Your task to perform on an android device: snooze an email in the gmail app Image 0: 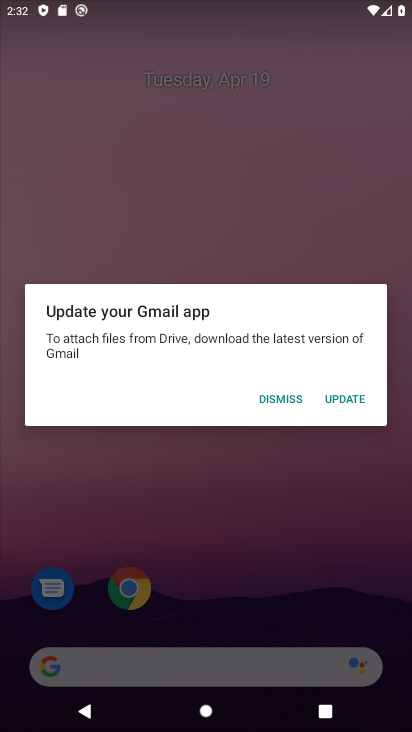
Step 0: click (280, 395)
Your task to perform on an android device: snooze an email in the gmail app Image 1: 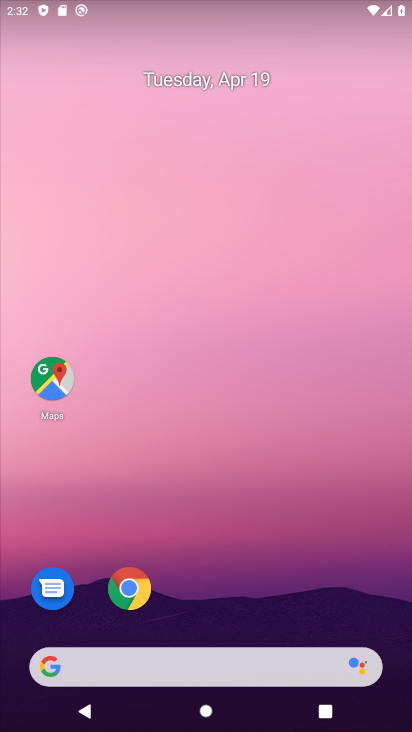
Step 1: drag from (170, 620) to (211, 68)
Your task to perform on an android device: snooze an email in the gmail app Image 2: 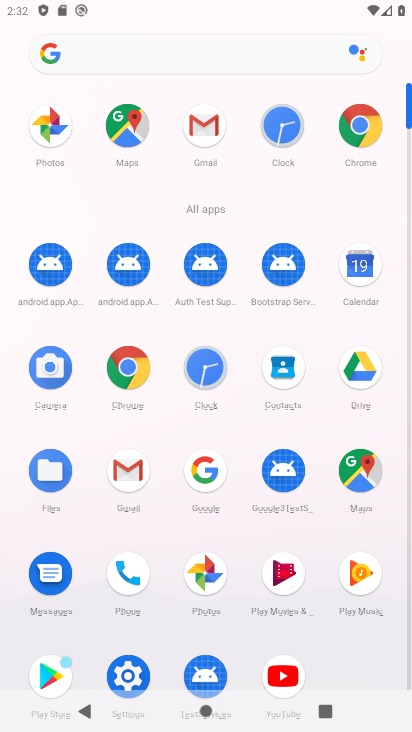
Step 2: click (125, 677)
Your task to perform on an android device: snooze an email in the gmail app Image 3: 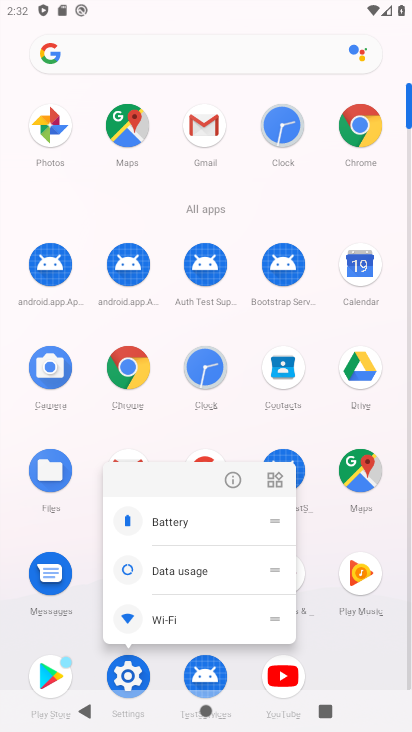
Step 3: click (240, 471)
Your task to perform on an android device: snooze an email in the gmail app Image 4: 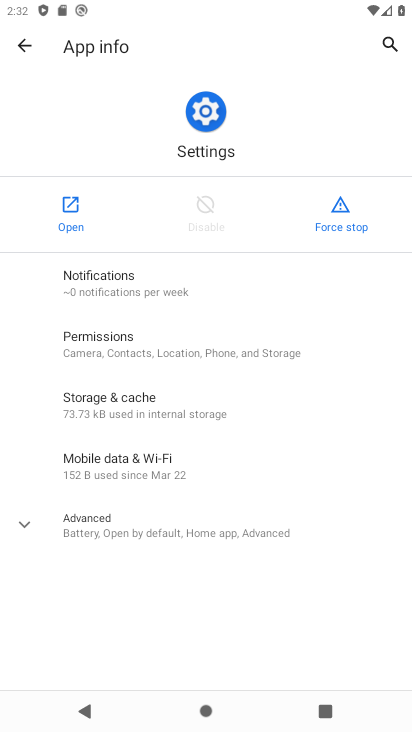
Step 4: click (71, 203)
Your task to perform on an android device: snooze an email in the gmail app Image 5: 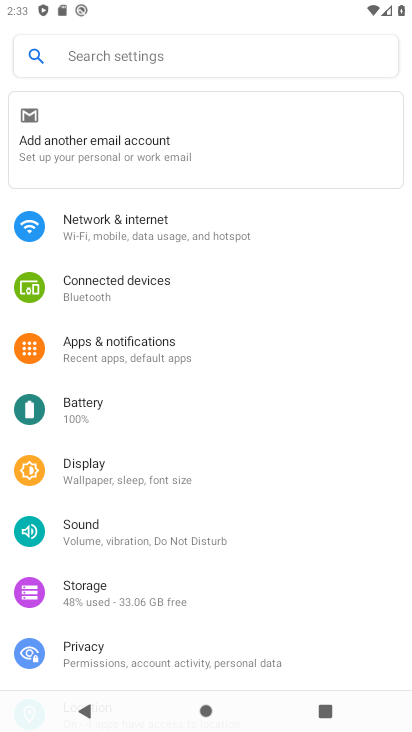
Step 5: drag from (190, 466) to (319, 131)
Your task to perform on an android device: snooze an email in the gmail app Image 6: 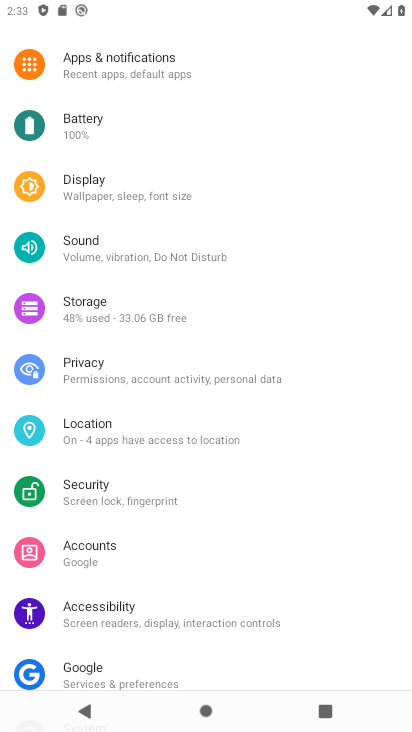
Step 6: press home button
Your task to perform on an android device: snooze an email in the gmail app Image 7: 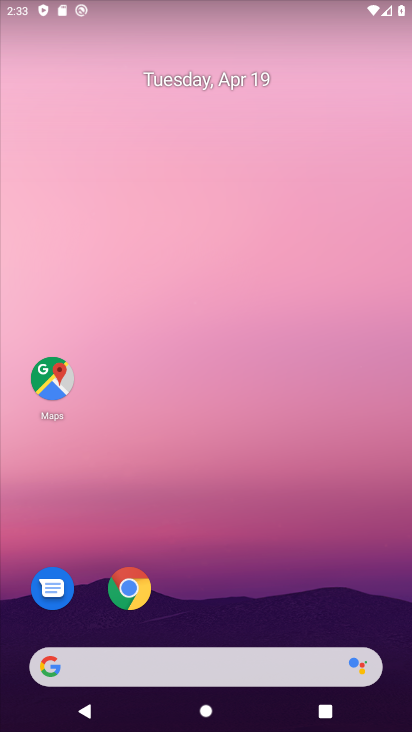
Step 7: drag from (239, 641) to (314, 159)
Your task to perform on an android device: snooze an email in the gmail app Image 8: 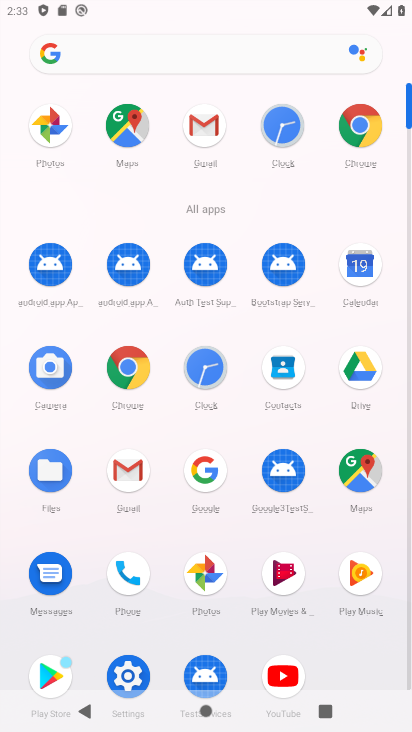
Step 8: click (122, 474)
Your task to perform on an android device: snooze an email in the gmail app Image 9: 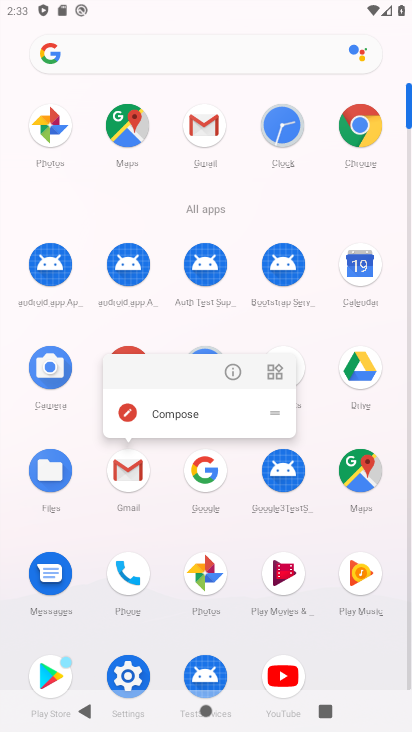
Step 9: click (234, 374)
Your task to perform on an android device: snooze an email in the gmail app Image 10: 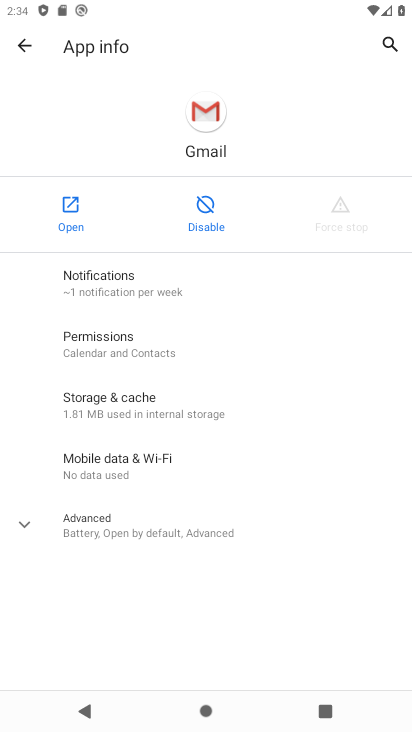
Step 10: click (68, 219)
Your task to perform on an android device: snooze an email in the gmail app Image 11: 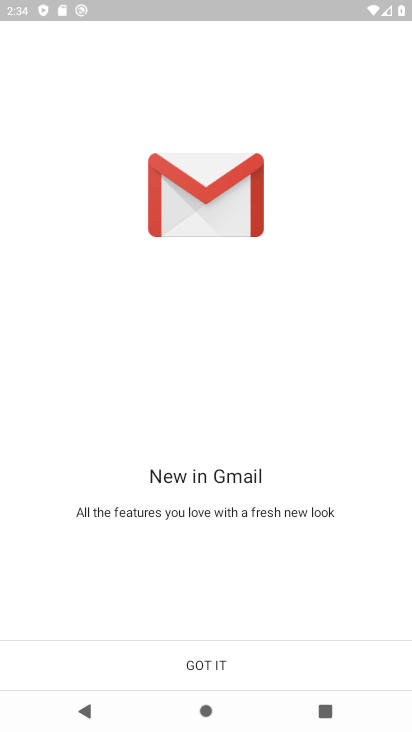
Step 11: click (224, 651)
Your task to perform on an android device: snooze an email in the gmail app Image 12: 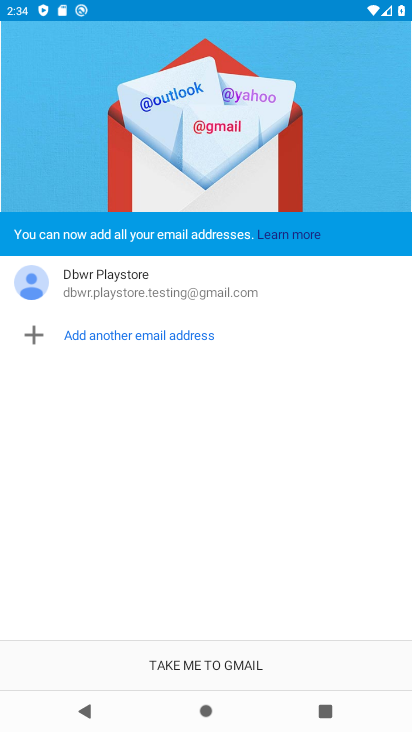
Step 12: click (234, 670)
Your task to perform on an android device: snooze an email in the gmail app Image 13: 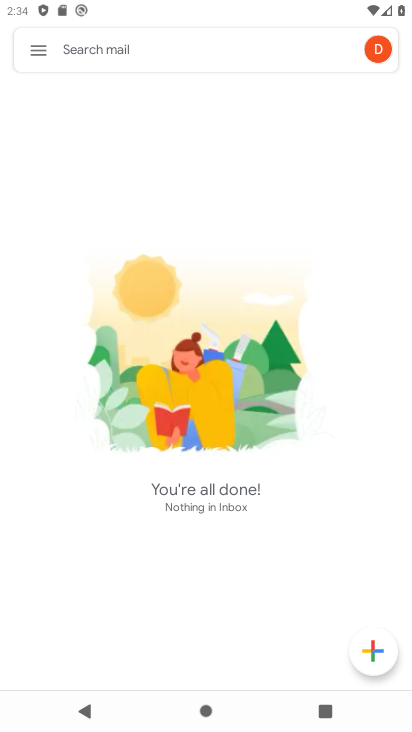
Step 13: task complete